Your task to perform on an android device: set default search engine in the chrome app Image 0: 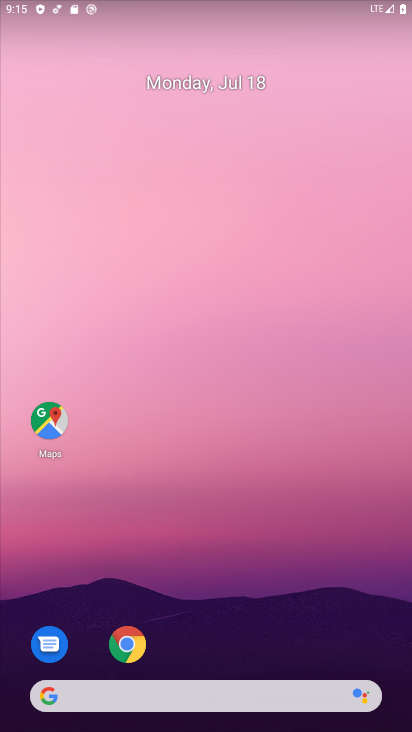
Step 0: drag from (343, 632) to (356, 139)
Your task to perform on an android device: set default search engine in the chrome app Image 1: 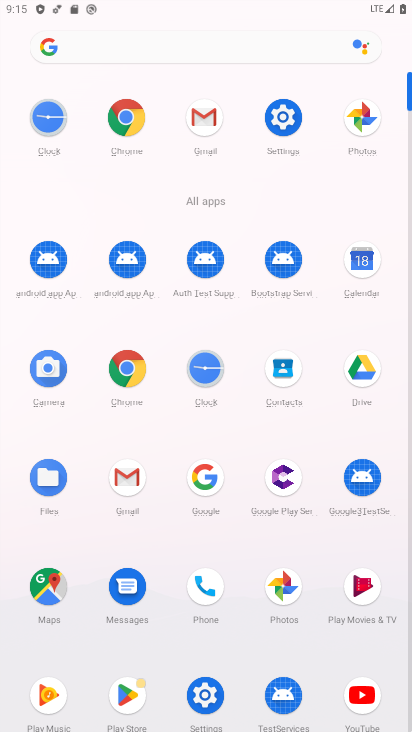
Step 1: click (141, 379)
Your task to perform on an android device: set default search engine in the chrome app Image 2: 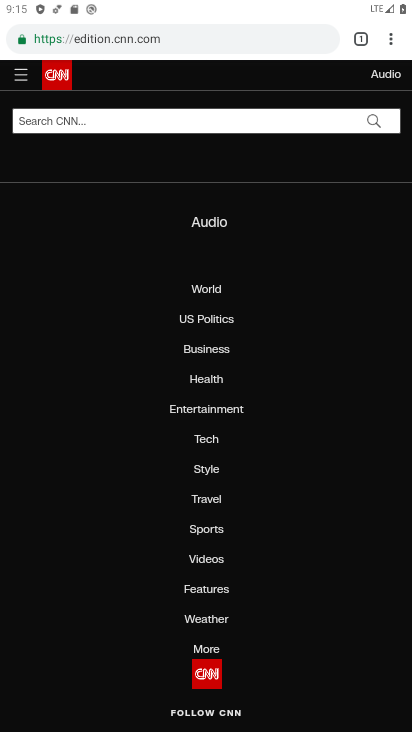
Step 2: click (389, 41)
Your task to perform on an android device: set default search engine in the chrome app Image 3: 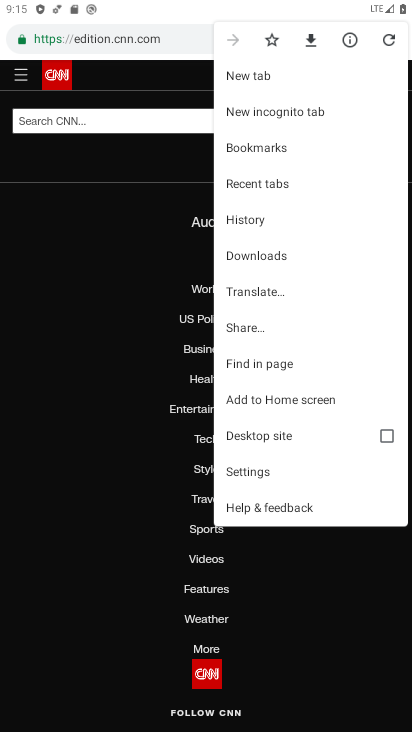
Step 3: click (268, 468)
Your task to perform on an android device: set default search engine in the chrome app Image 4: 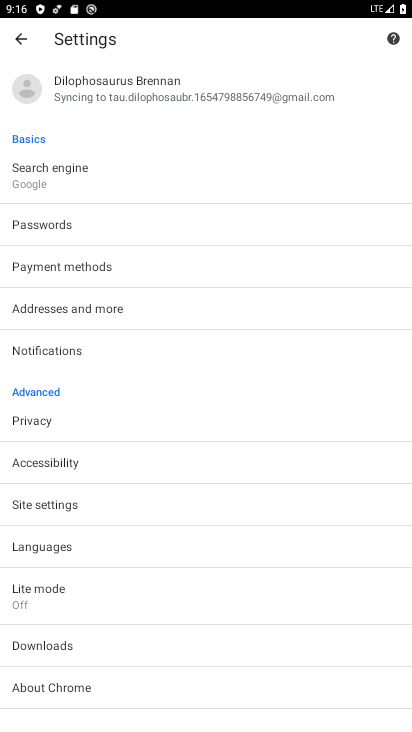
Step 4: click (157, 190)
Your task to perform on an android device: set default search engine in the chrome app Image 5: 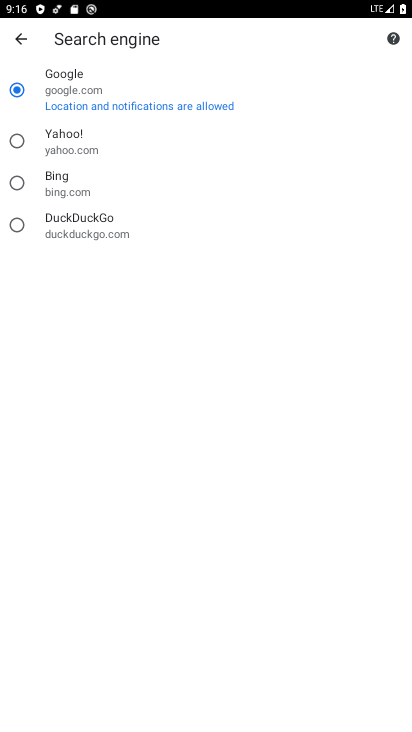
Step 5: click (71, 186)
Your task to perform on an android device: set default search engine in the chrome app Image 6: 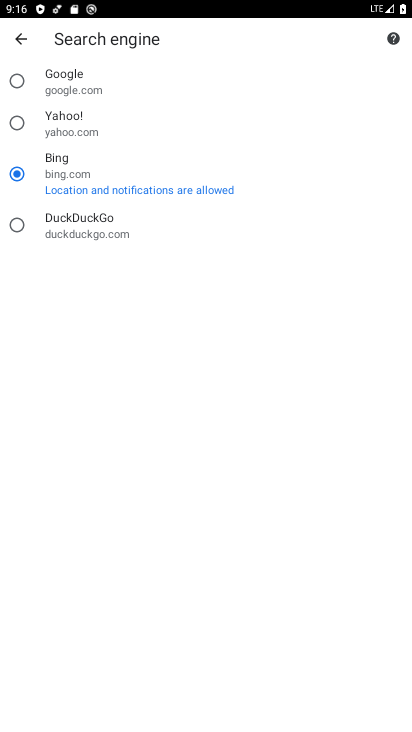
Step 6: task complete